Your task to perform on an android device: turn smart compose on in the gmail app Image 0: 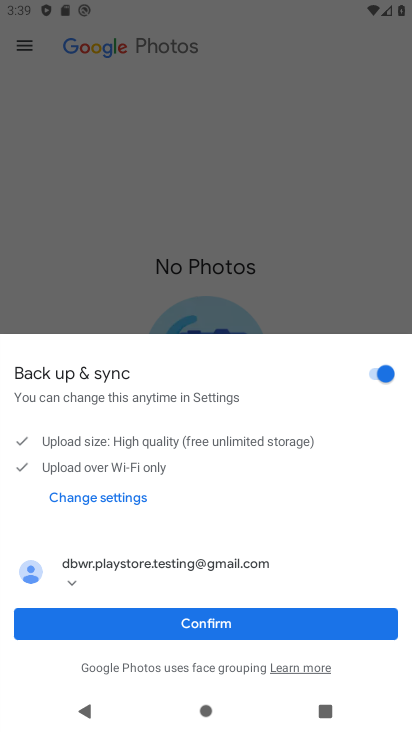
Step 0: press home button
Your task to perform on an android device: turn smart compose on in the gmail app Image 1: 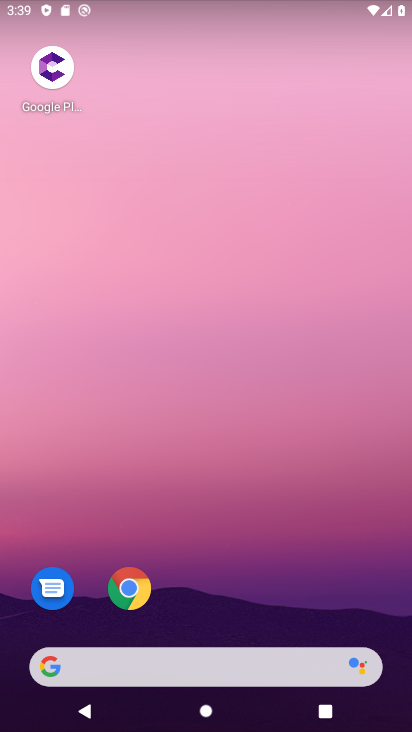
Step 1: drag from (229, 624) to (140, 127)
Your task to perform on an android device: turn smart compose on in the gmail app Image 2: 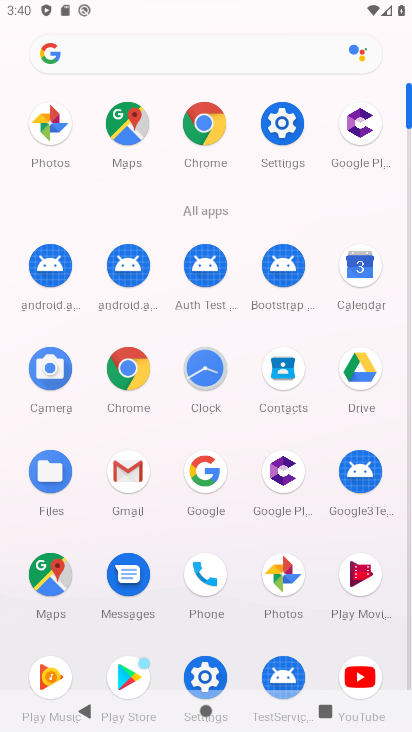
Step 2: click (119, 467)
Your task to perform on an android device: turn smart compose on in the gmail app Image 3: 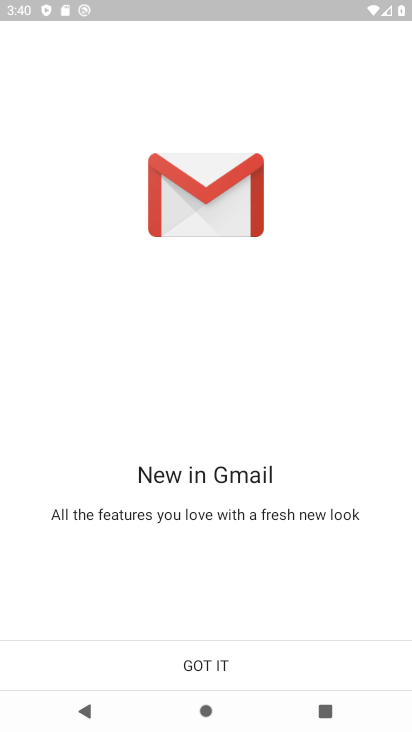
Step 3: click (220, 674)
Your task to perform on an android device: turn smart compose on in the gmail app Image 4: 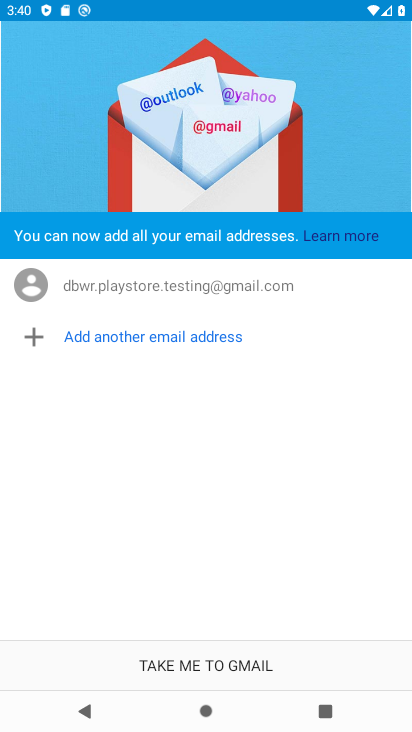
Step 4: click (220, 674)
Your task to perform on an android device: turn smart compose on in the gmail app Image 5: 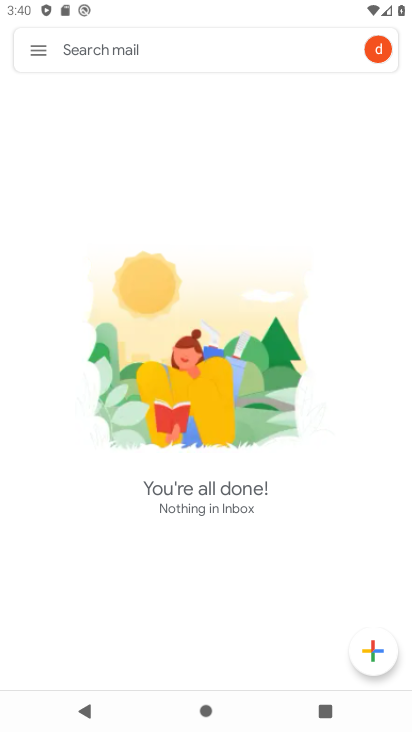
Step 5: click (39, 54)
Your task to perform on an android device: turn smart compose on in the gmail app Image 6: 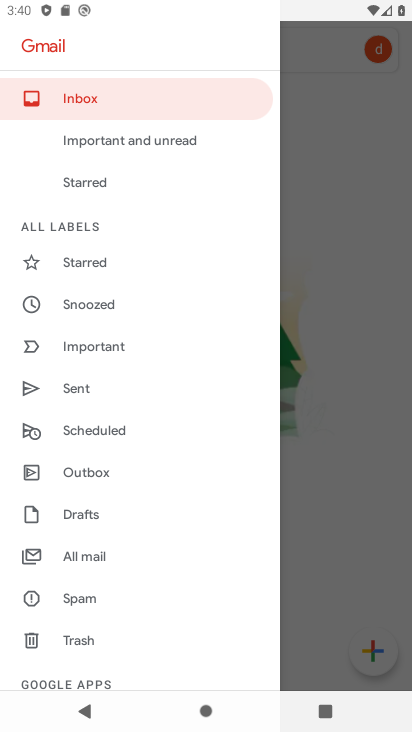
Step 6: drag from (83, 639) to (42, 307)
Your task to perform on an android device: turn smart compose on in the gmail app Image 7: 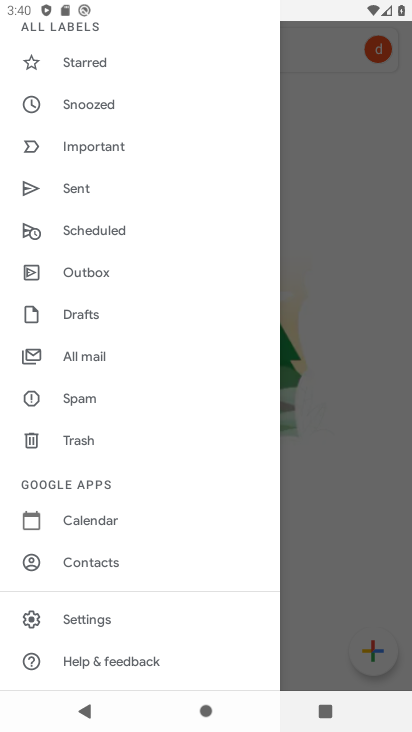
Step 7: click (104, 620)
Your task to perform on an android device: turn smart compose on in the gmail app Image 8: 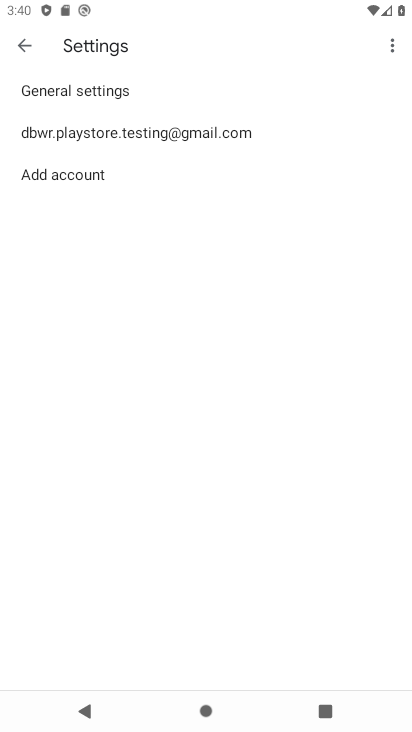
Step 8: click (285, 134)
Your task to perform on an android device: turn smart compose on in the gmail app Image 9: 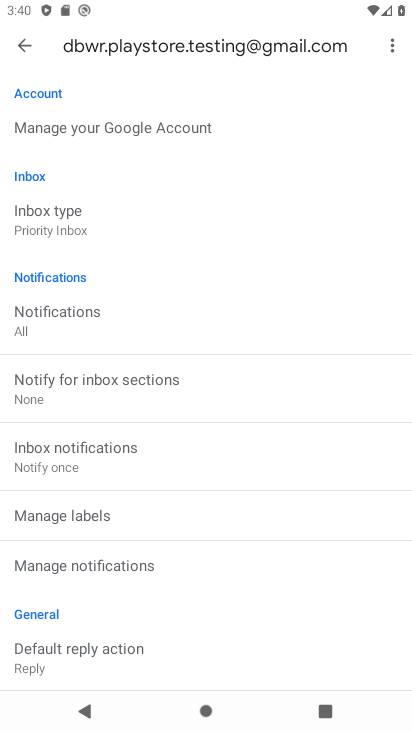
Step 9: task complete